Your task to perform on an android device: Open Amazon Image 0: 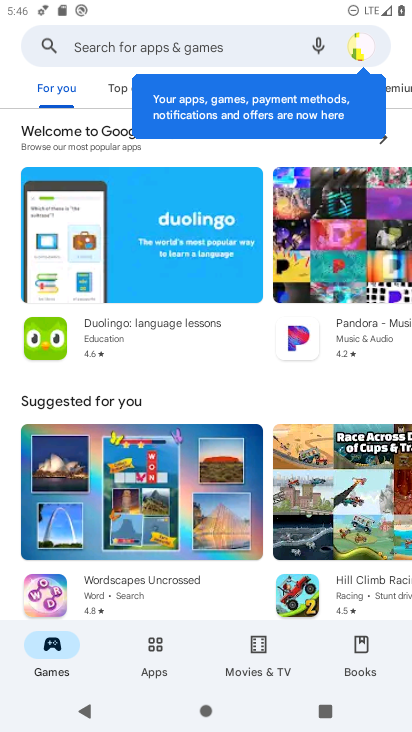
Step 0: press home button
Your task to perform on an android device: Open Amazon Image 1: 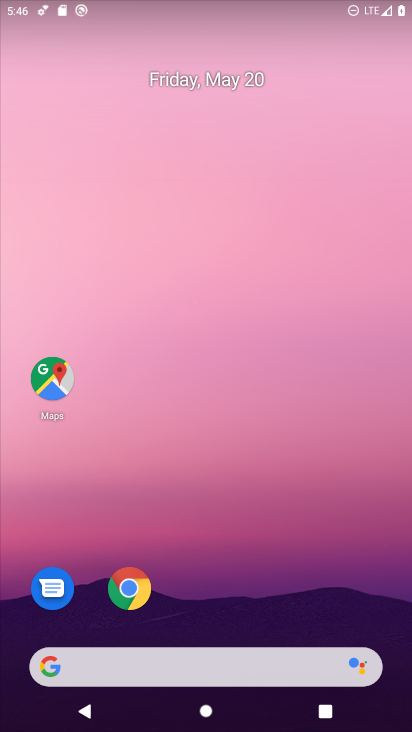
Step 1: click (120, 600)
Your task to perform on an android device: Open Amazon Image 2: 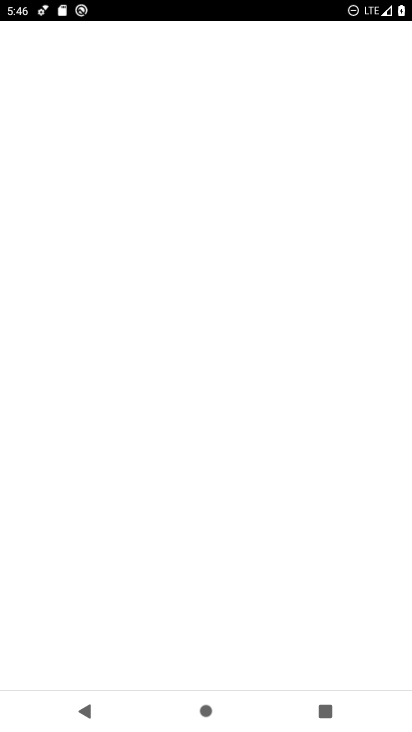
Step 2: click (131, 587)
Your task to perform on an android device: Open Amazon Image 3: 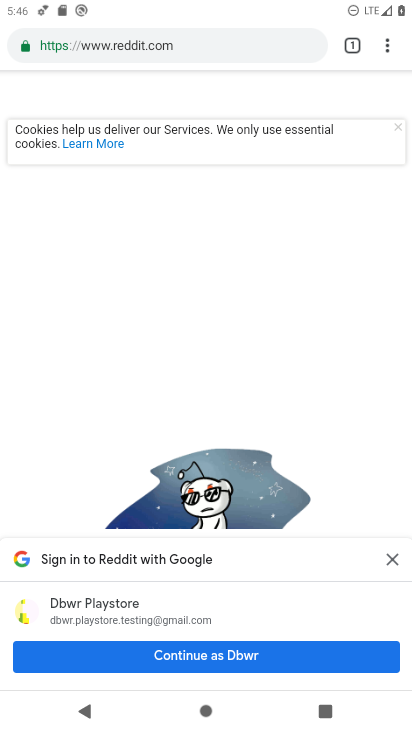
Step 3: press back button
Your task to perform on an android device: Open Amazon Image 4: 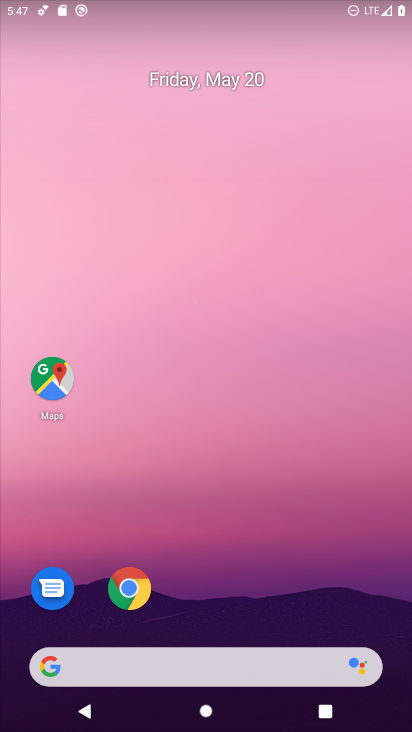
Step 4: click (131, 580)
Your task to perform on an android device: Open Amazon Image 5: 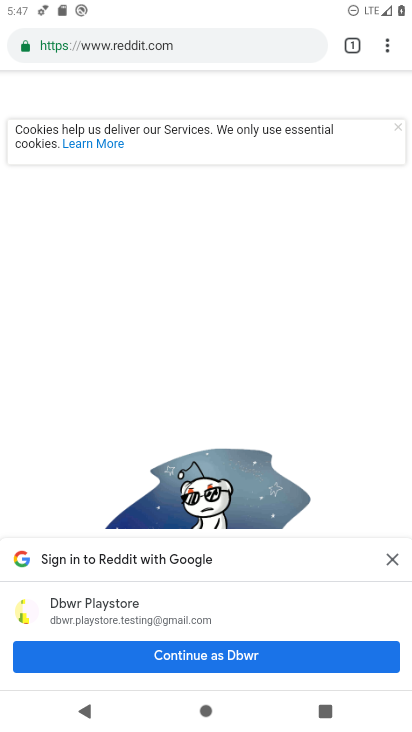
Step 5: click (138, 41)
Your task to perform on an android device: Open Amazon Image 6: 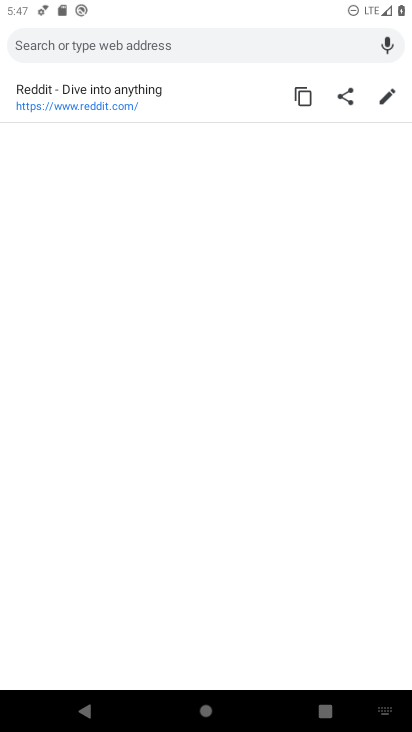
Step 6: type "www.amazon.com"
Your task to perform on an android device: Open Amazon Image 7: 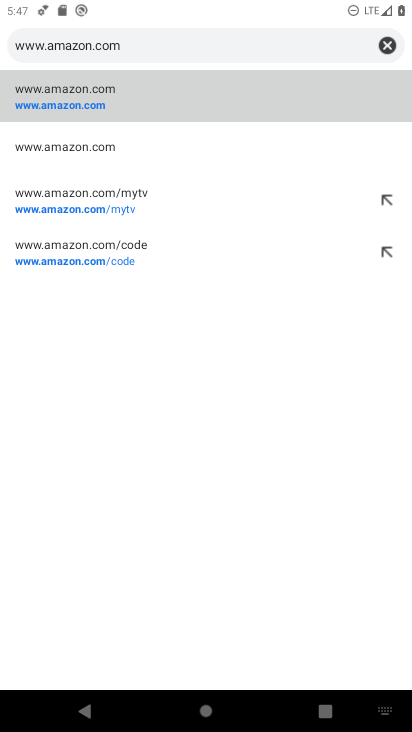
Step 7: click (39, 99)
Your task to perform on an android device: Open Amazon Image 8: 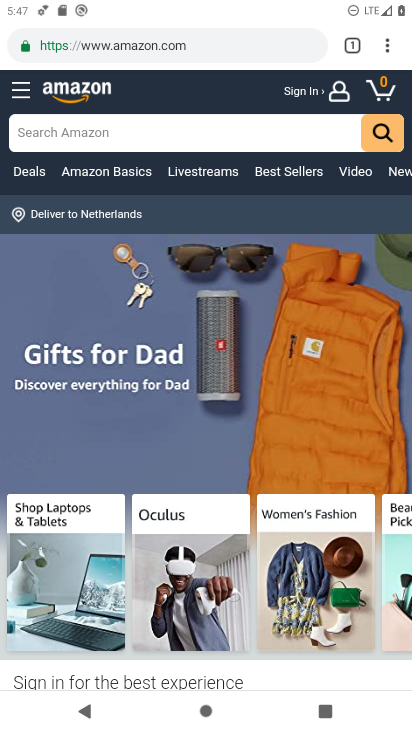
Step 8: task complete